Your task to perform on an android device: Show me popular games on the Play Store Image 0: 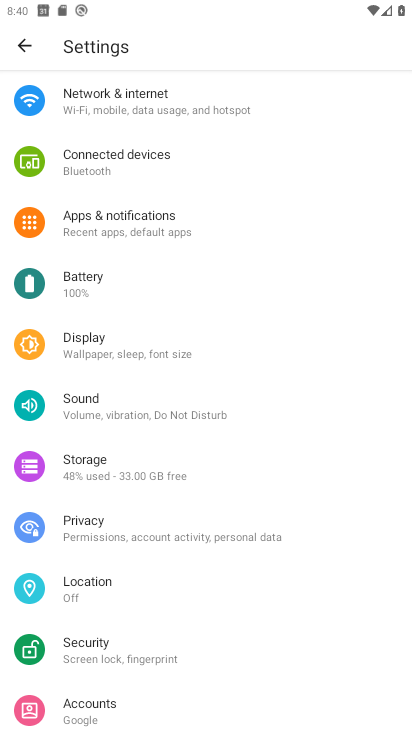
Step 0: press home button
Your task to perform on an android device: Show me popular games on the Play Store Image 1: 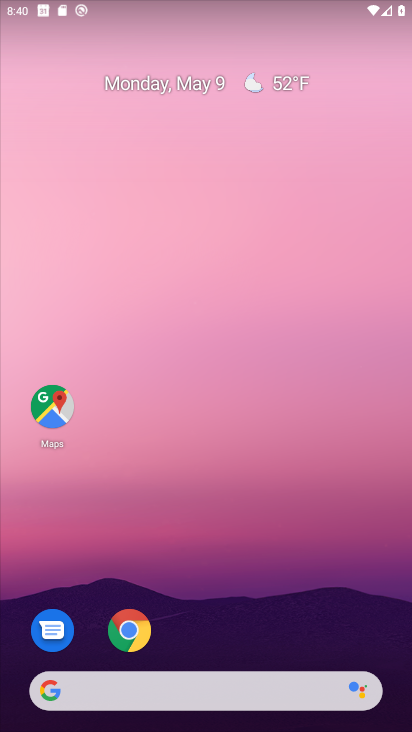
Step 1: drag from (218, 653) to (335, 103)
Your task to perform on an android device: Show me popular games on the Play Store Image 2: 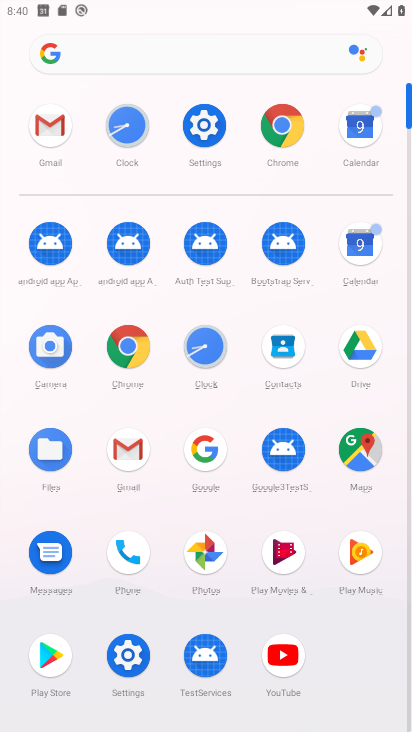
Step 2: click (60, 650)
Your task to perform on an android device: Show me popular games on the Play Store Image 3: 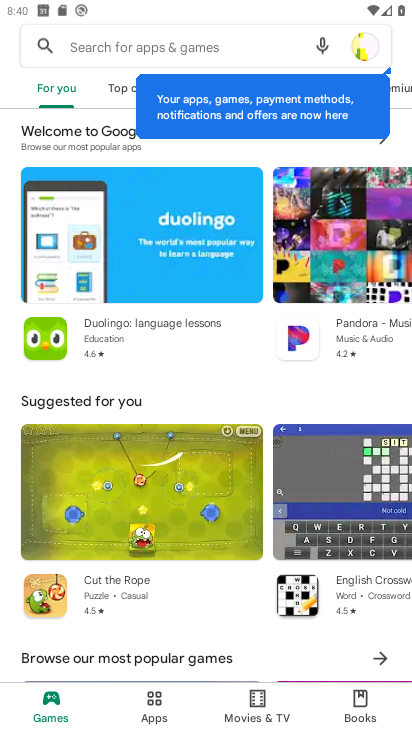
Step 3: drag from (381, 168) to (221, 165)
Your task to perform on an android device: Show me popular games on the Play Store Image 4: 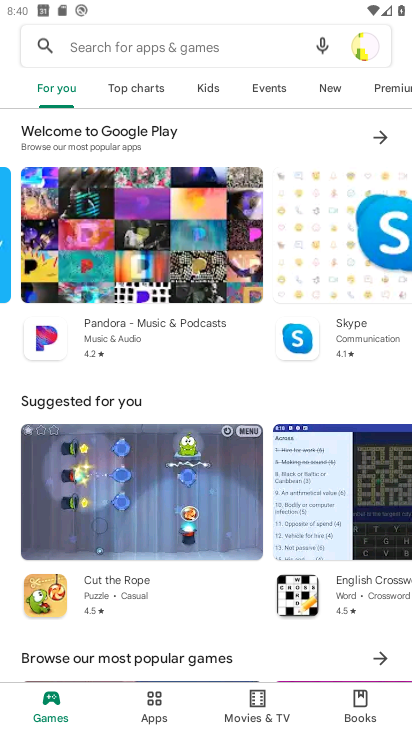
Step 4: drag from (324, 91) to (80, 88)
Your task to perform on an android device: Show me popular games on the Play Store Image 5: 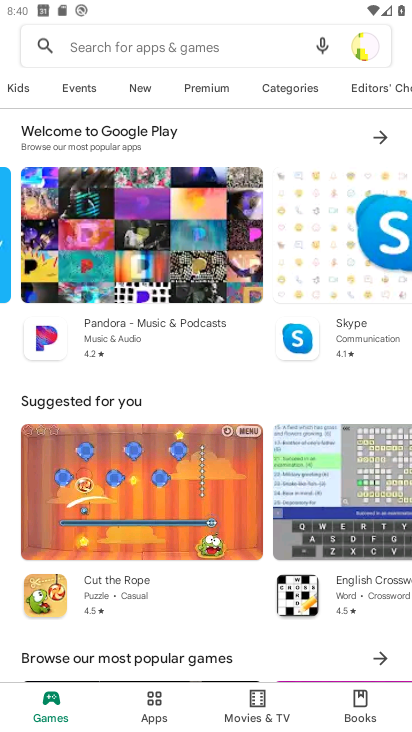
Step 5: click (297, 92)
Your task to perform on an android device: Show me popular games on the Play Store Image 6: 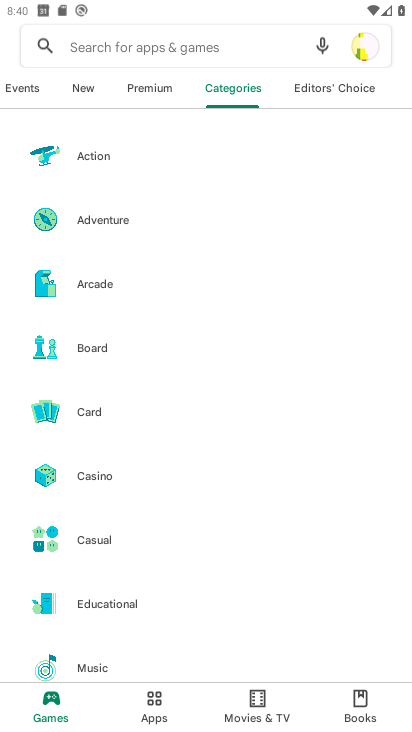
Step 6: drag from (93, 611) to (134, 304)
Your task to perform on an android device: Show me popular games on the Play Store Image 7: 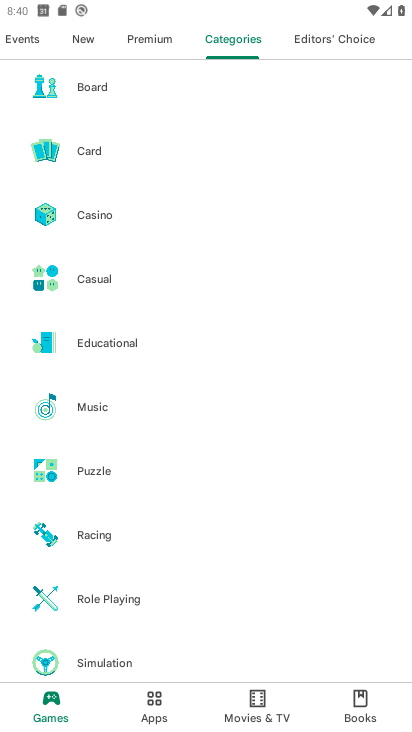
Step 7: drag from (107, 556) to (148, 205)
Your task to perform on an android device: Show me popular games on the Play Store Image 8: 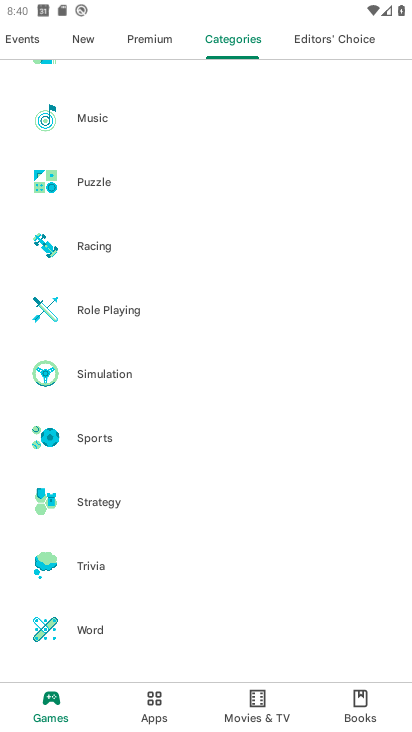
Step 8: drag from (110, 625) to (140, 124)
Your task to perform on an android device: Show me popular games on the Play Store Image 9: 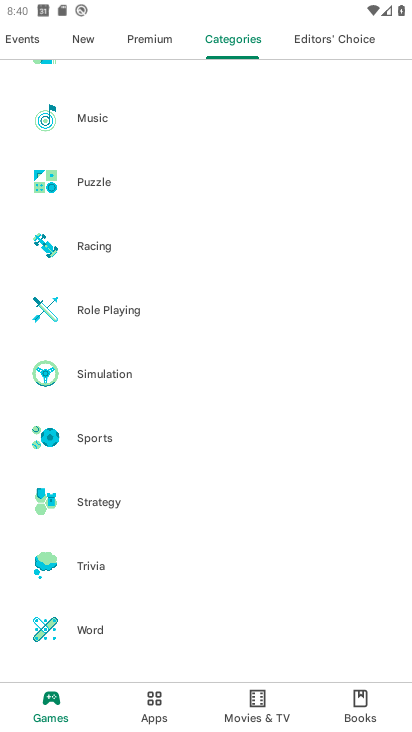
Step 9: drag from (137, 137) to (92, 658)
Your task to perform on an android device: Show me popular games on the Play Store Image 10: 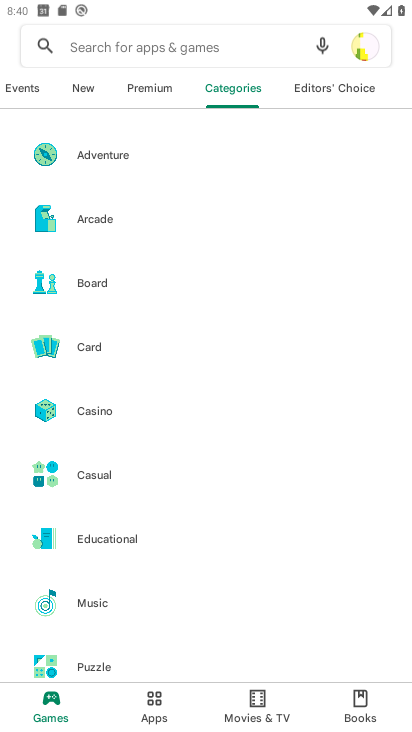
Step 10: drag from (140, 276) to (146, 691)
Your task to perform on an android device: Show me popular games on the Play Store Image 11: 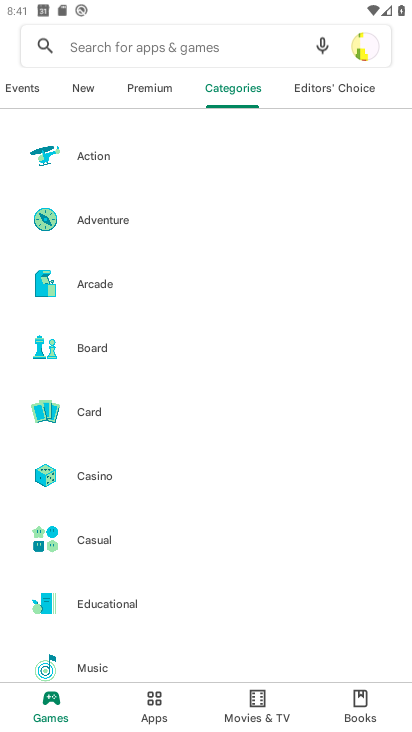
Step 11: drag from (329, 82) to (89, 80)
Your task to perform on an android device: Show me popular games on the Play Store Image 12: 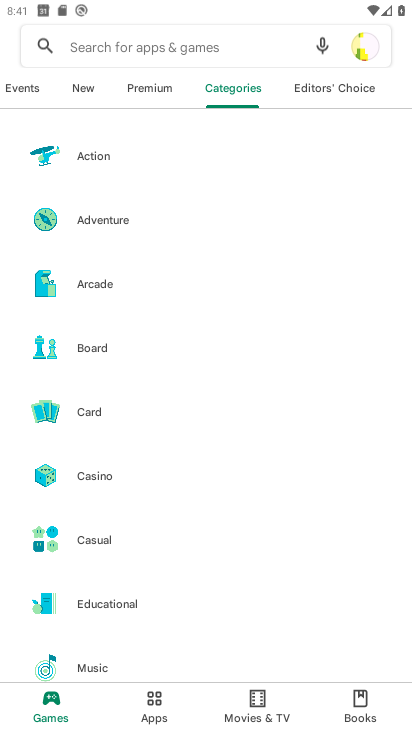
Step 12: drag from (153, 90) to (384, 92)
Your task to perform on an android device: Show me popular games on the Play Store Image 13: 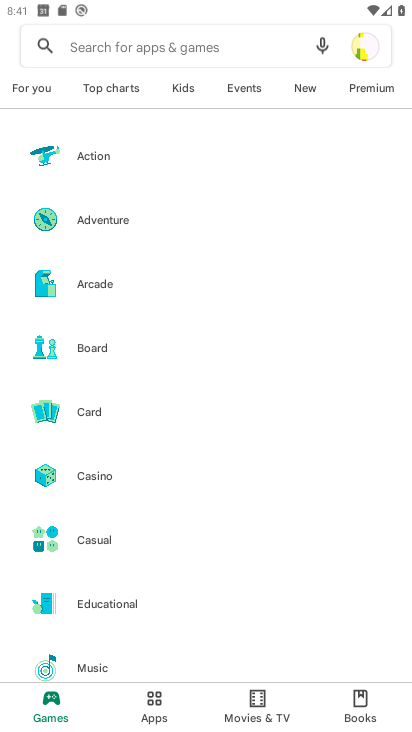
Step 13: click (132, 91)
Your task to perform on an android device: Show me popular games on the Play Store Image 14: 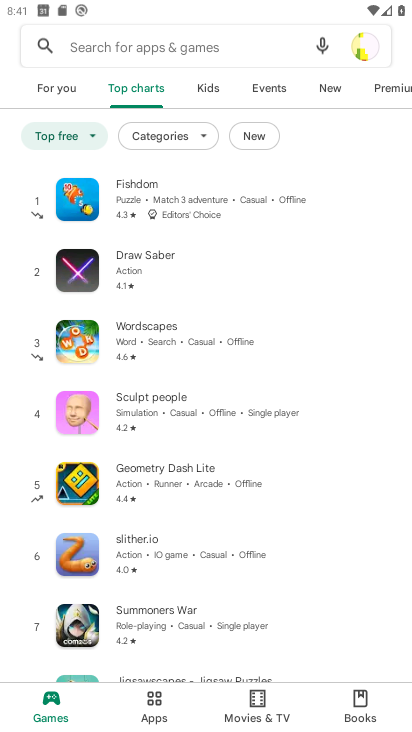
Step 14: task complete